Your task to perform on an android device: Go to location settings Image 0: 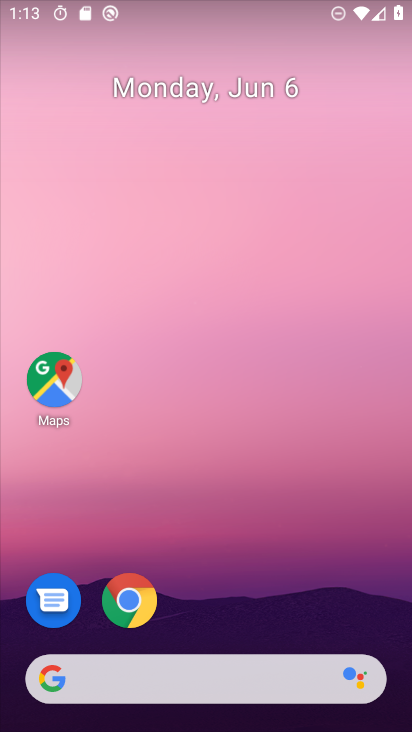
Step 0: drag from (220, 633) to (232, 150)
Your task to perform on an android device: Go to location settings Image 1: 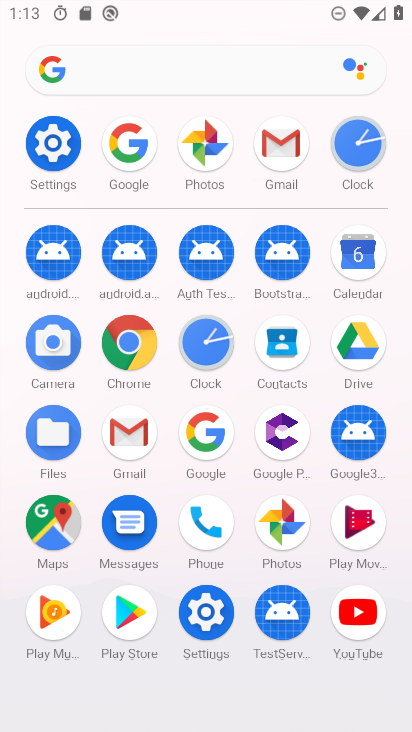
Step 1: click (42, 158)
Your task to perform on an android device: Go to location settings Image 2: 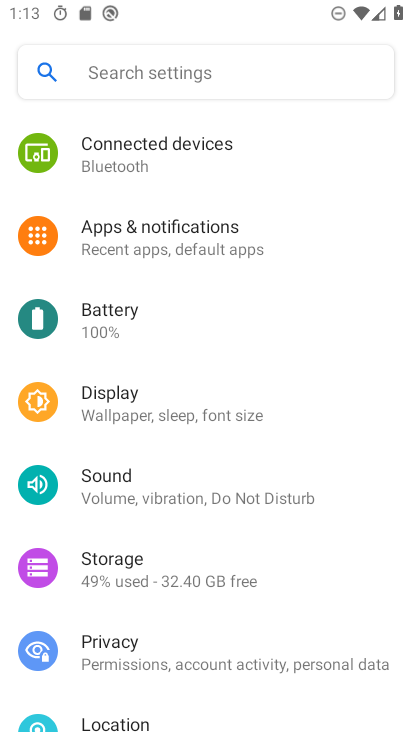
Step 2: drag from (189, 724) to (198, 473)
Your task to perform on an android device: Go to location settings Image 3: 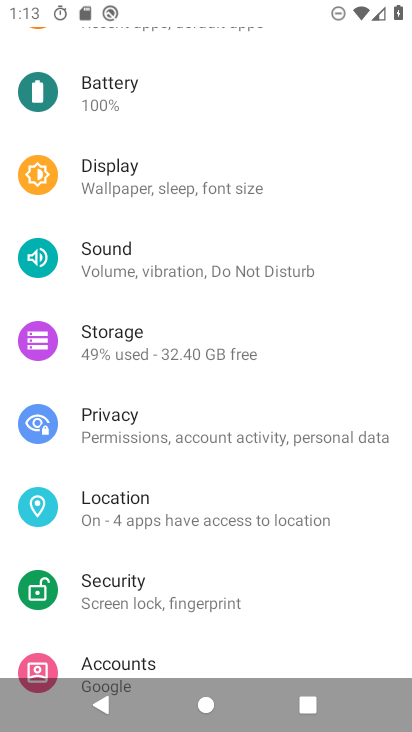
Step 3: click (183, 500)
Your task to perform on an android device: Go to location settings Image 4: 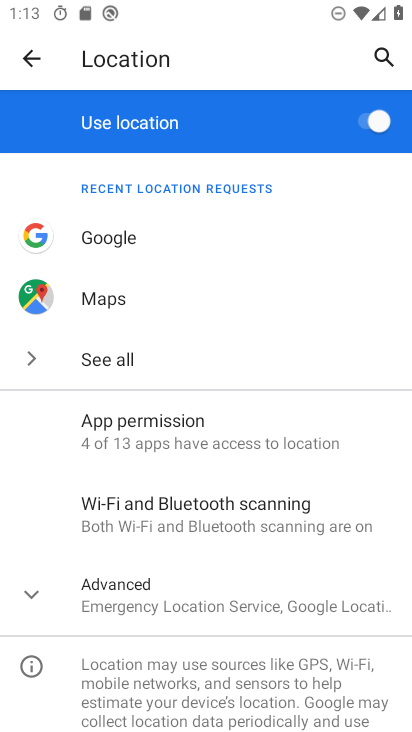
Step 4: drag from (257, 658) to (255, 417)
Your task to perform on an android device: Go to location settings Image 5: 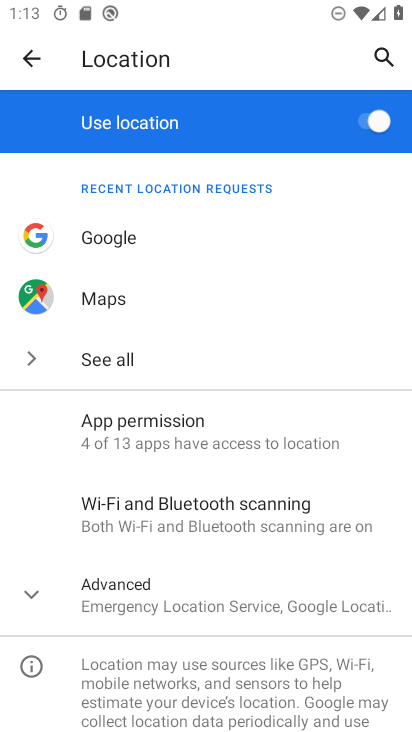
Step 5: click (163, 604)
Your task to perform on an android device: Go to location settings Image 6: 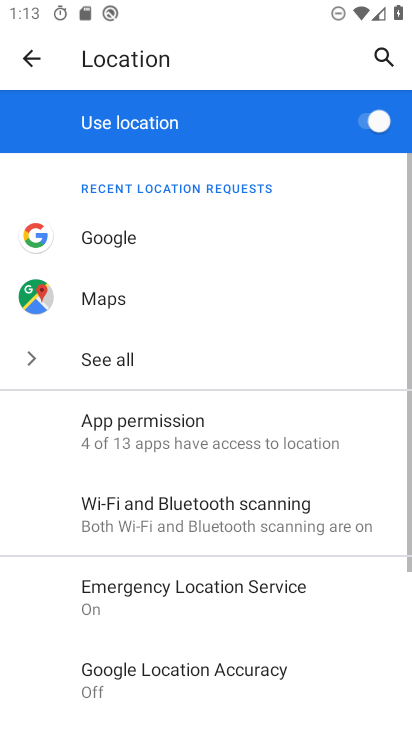
Step 6: task complete